Your task to perform on an android device: Check the weather Image 0: 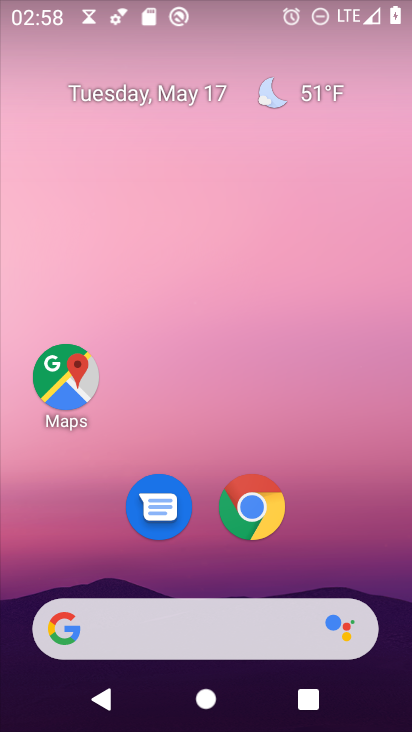
Step 0: drag from (217, 559) to (216, 26)
Your task to perform on an android device: Check the weather Image 1: 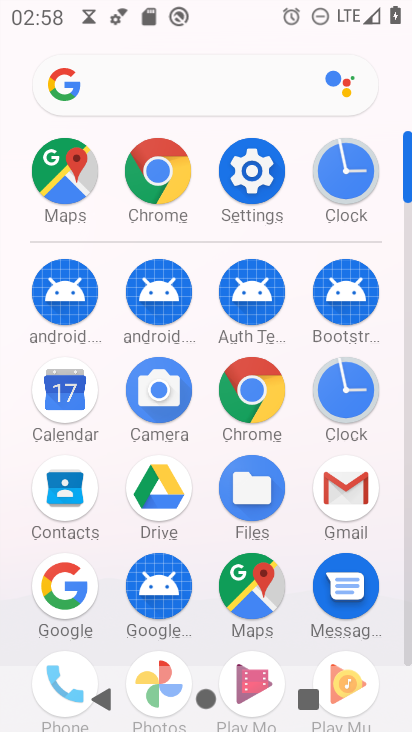
Step 1: click (189, 95)
Your task to perform on an android device: Check the weather Image 2: 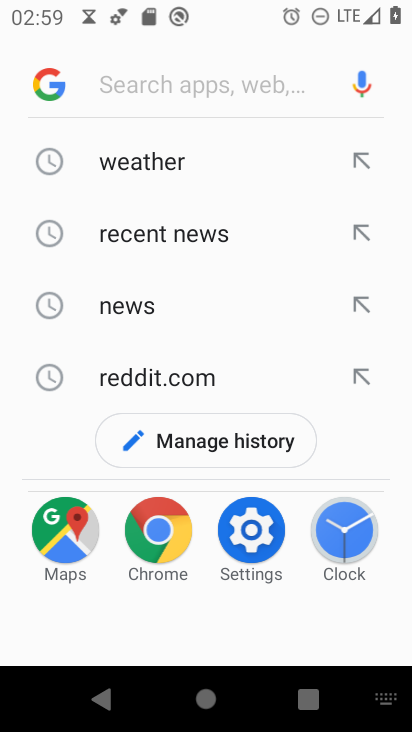
Step 2: type "weather"
Your task to perform on an android device: Check the weather Image 3: 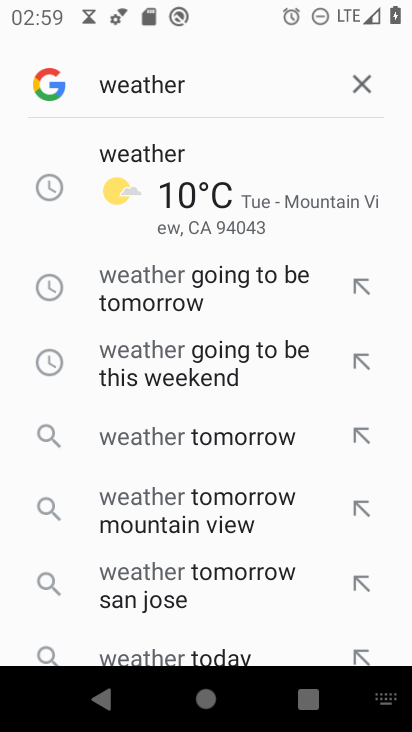
Step 3: click (203, 215)
Your task to perform on an android device: Check the weather Image 4: 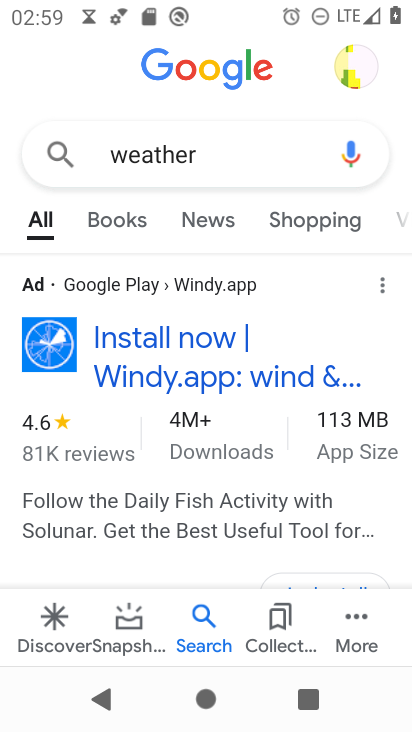
Step 4: task complete